Your task to perform on an android device: open app "Mercado Libre" (install if not already installed) and go to login screen Image 0: 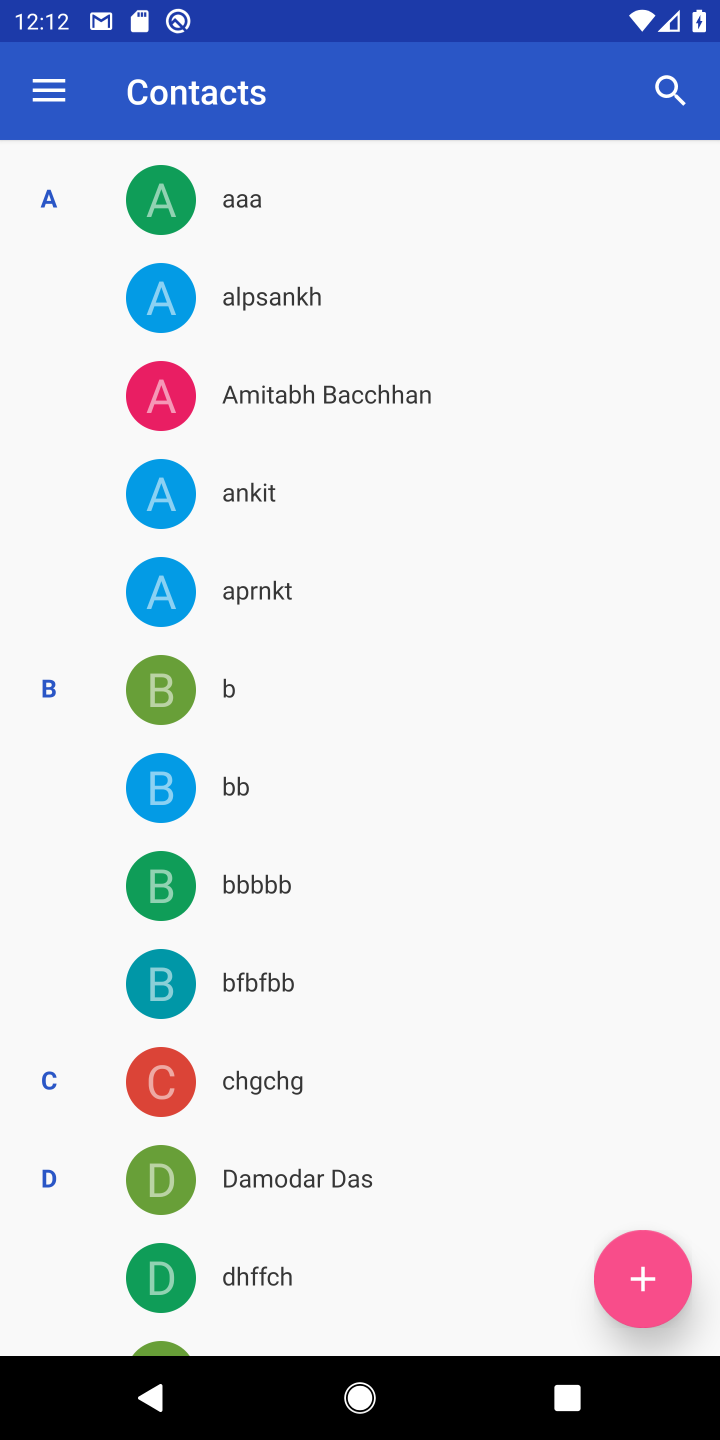
Step 0: press home button
Your task to perform on an android device: open app "Mercado Libre" (install if not already installed) and go to login screen Image 1: 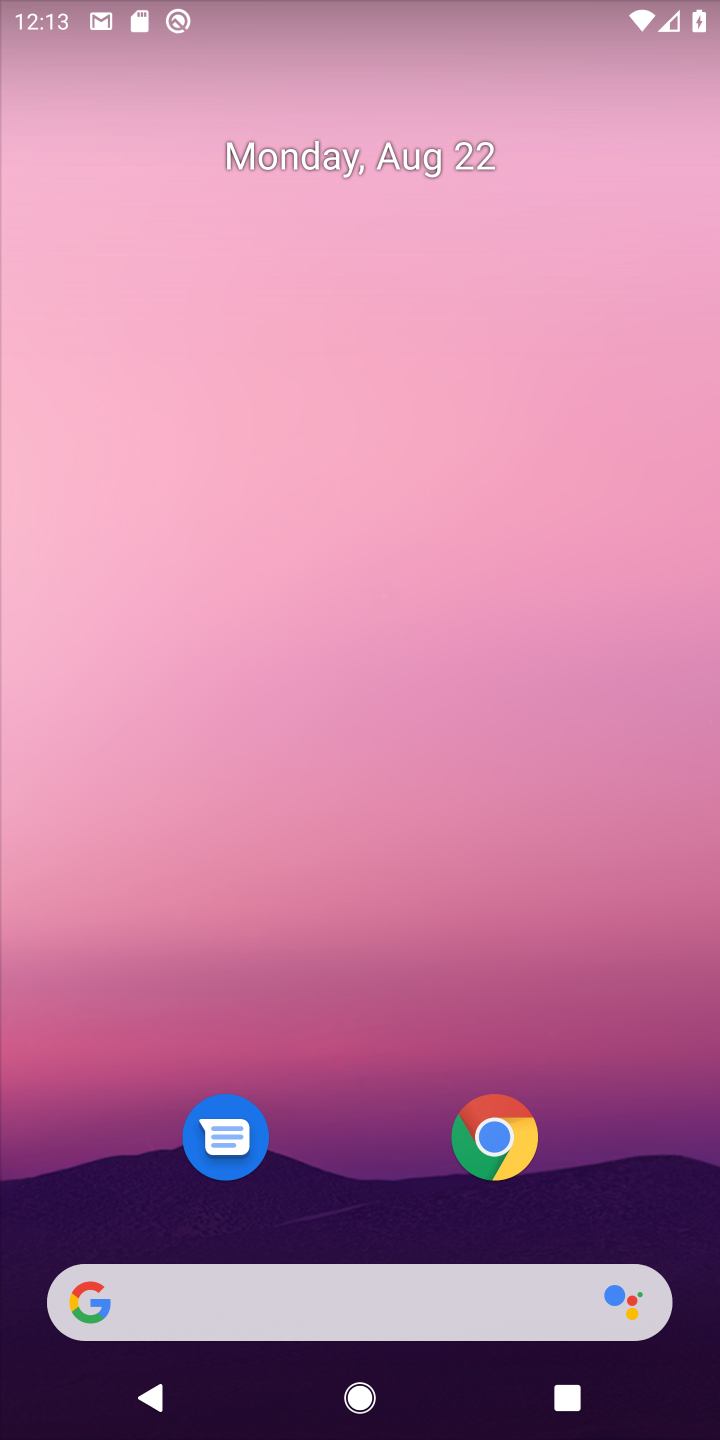
Step 1: drag from (676, 1214) to (615, 279)
Your task to perform on an android device: open app "Mercado Libre" (install if not already installed) and go to login screen Image 2: 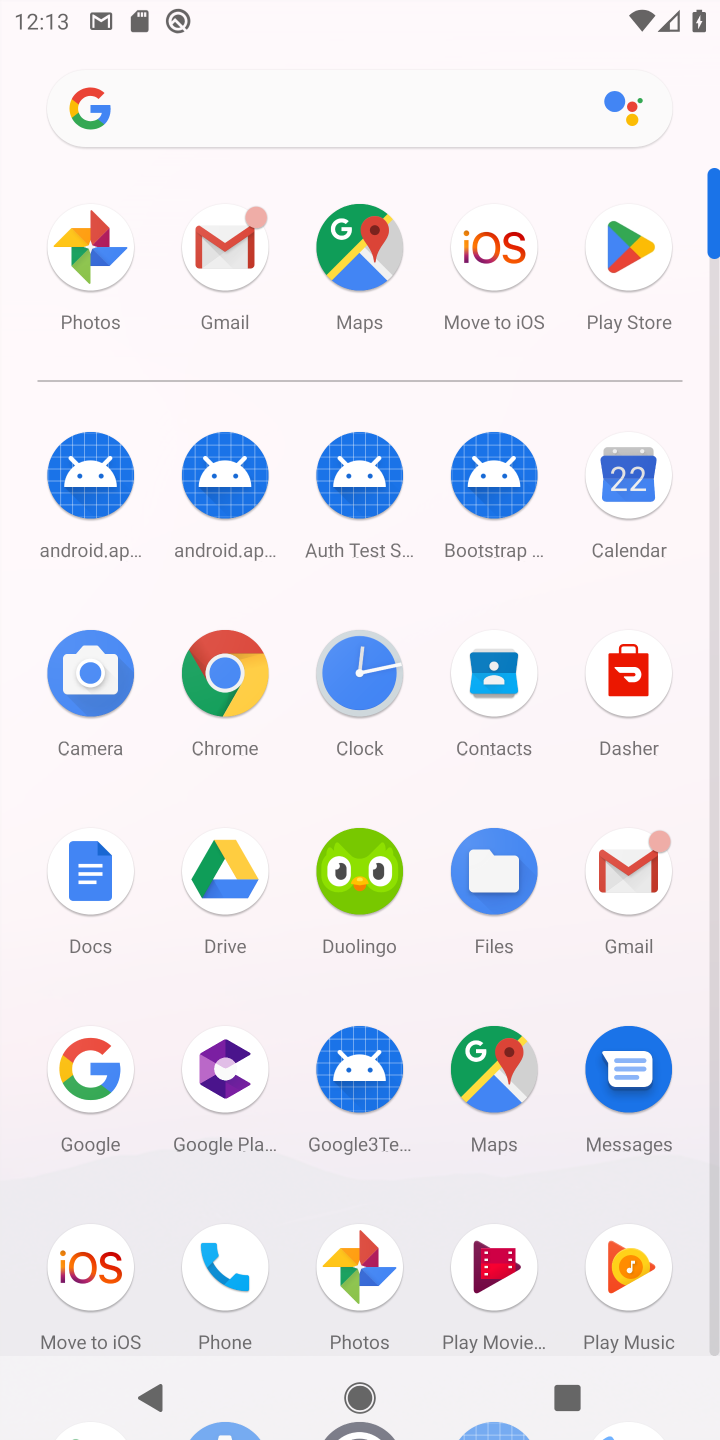
Step 2: drag from (422, 1200) to (410, 473)
Your task to perform on an android device: open app "Mercado Libre" (install if not already installed) and go to login screen Image 3: 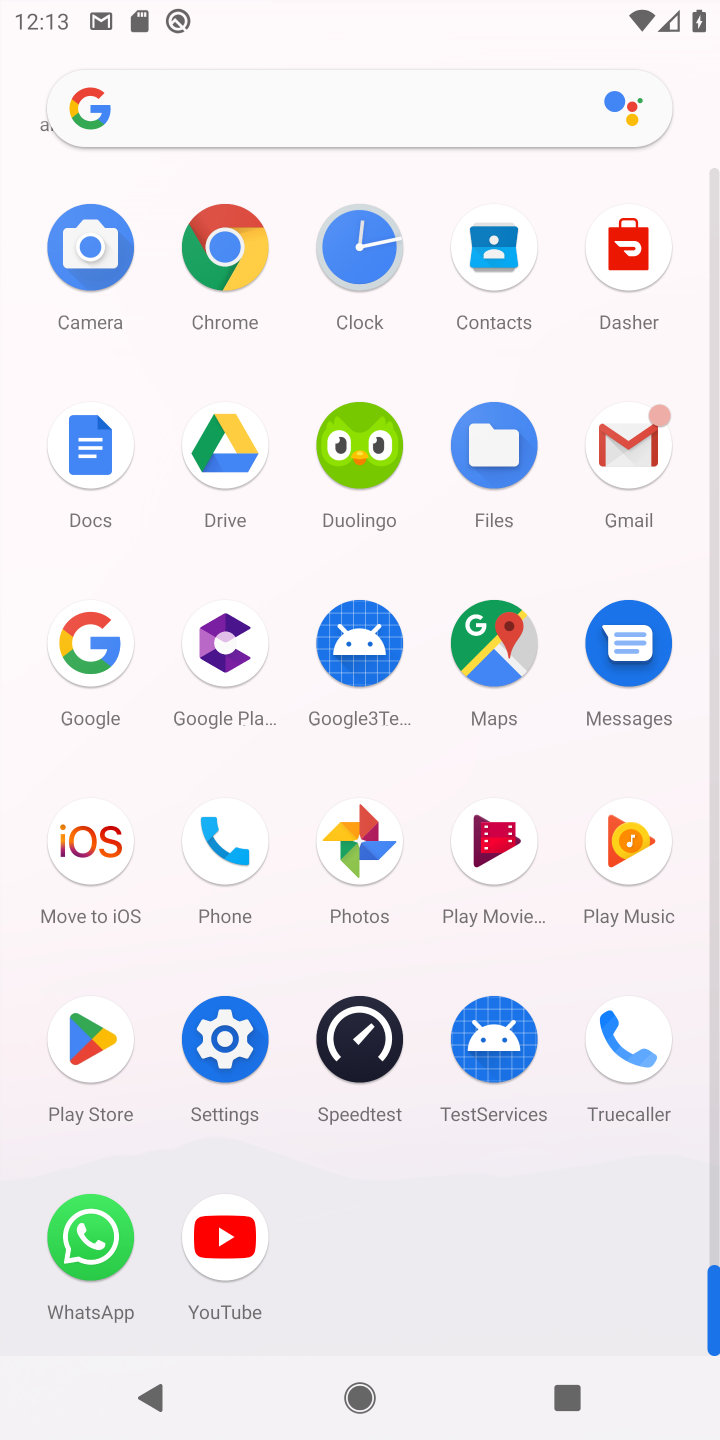
Step 3: click (93, 1039)
Your task to perform on an android device: open app "Mercado Libre" (install if not already installed) and go to login screen Image 4: 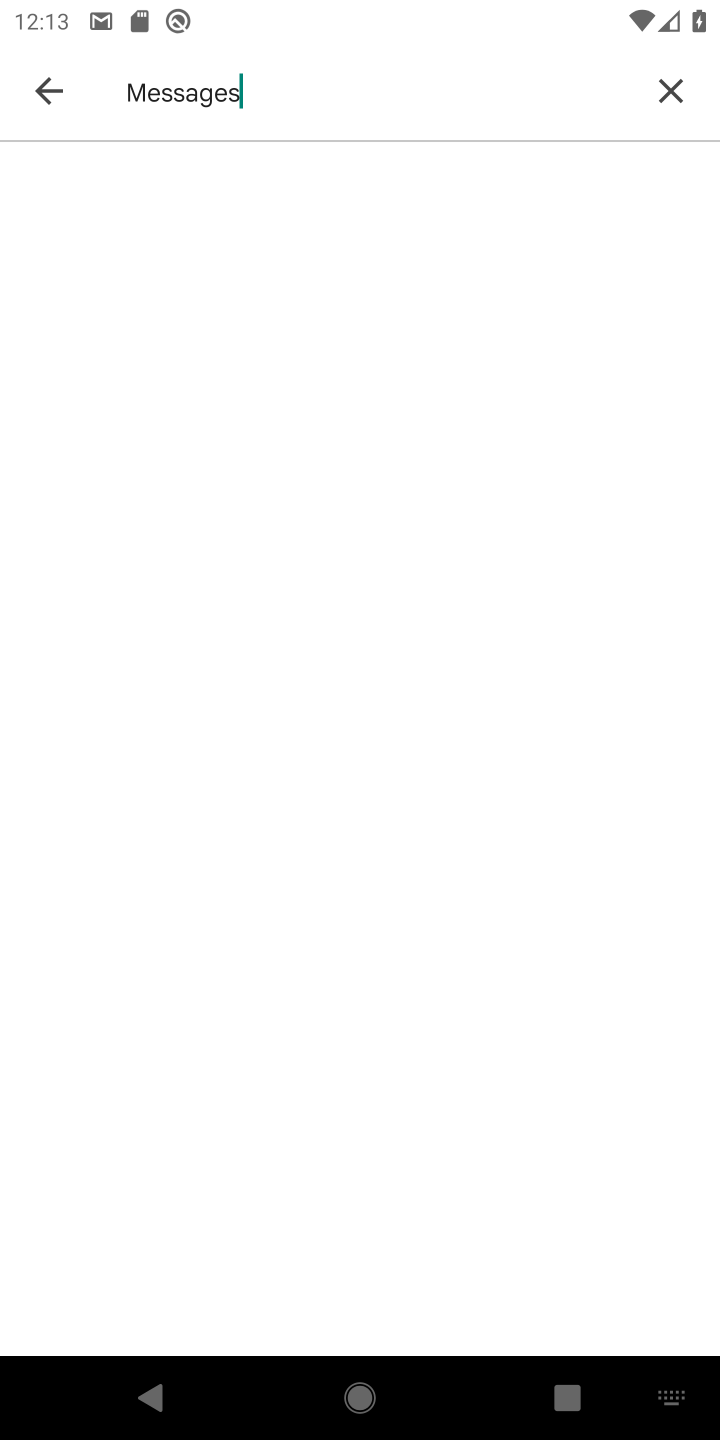
Step 4: click (672, 87)
Your task to perform on an android device: open app "Mercado Libre" (install if not already installed) and go to login screen Image 5: 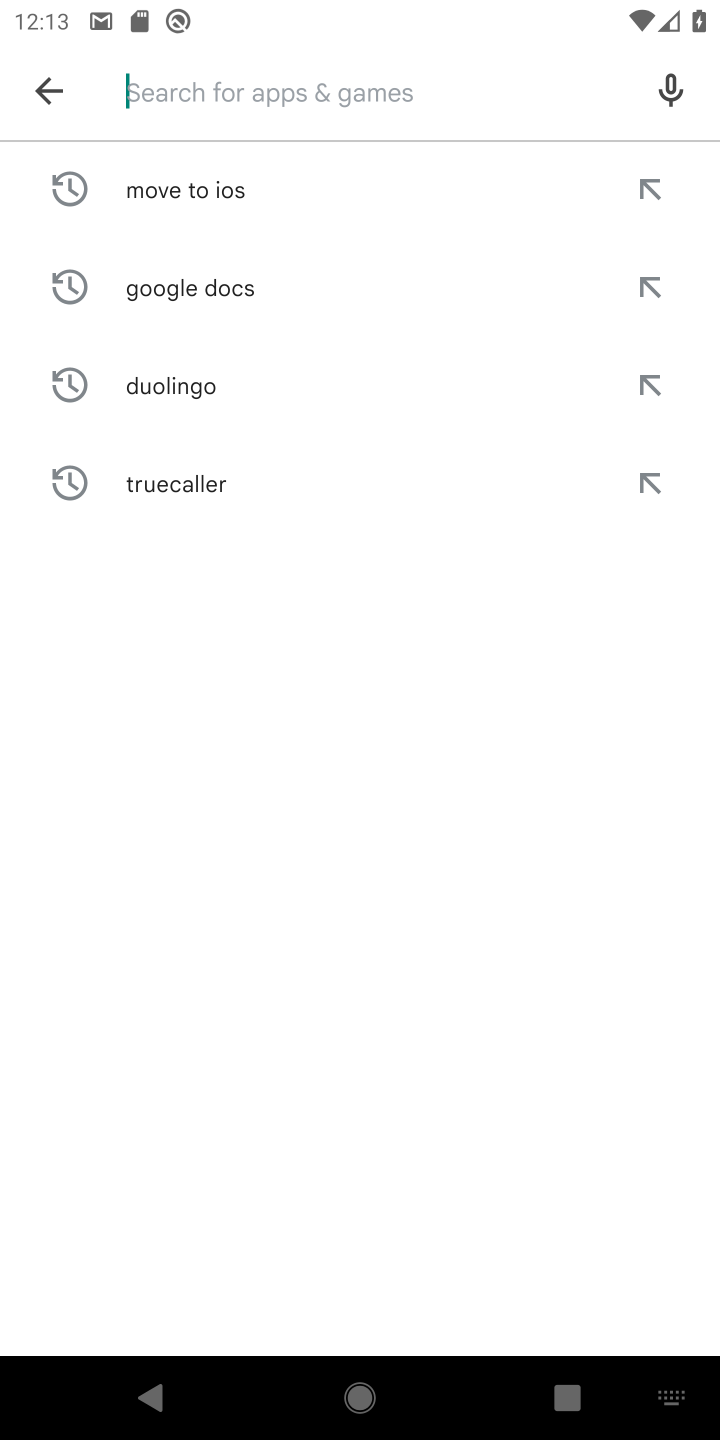
Step 5: type "Mercado Libre"
Your task to perform on an android device: open app "Mercado Libre" (install if not already installed) and go to login screen Image 6: 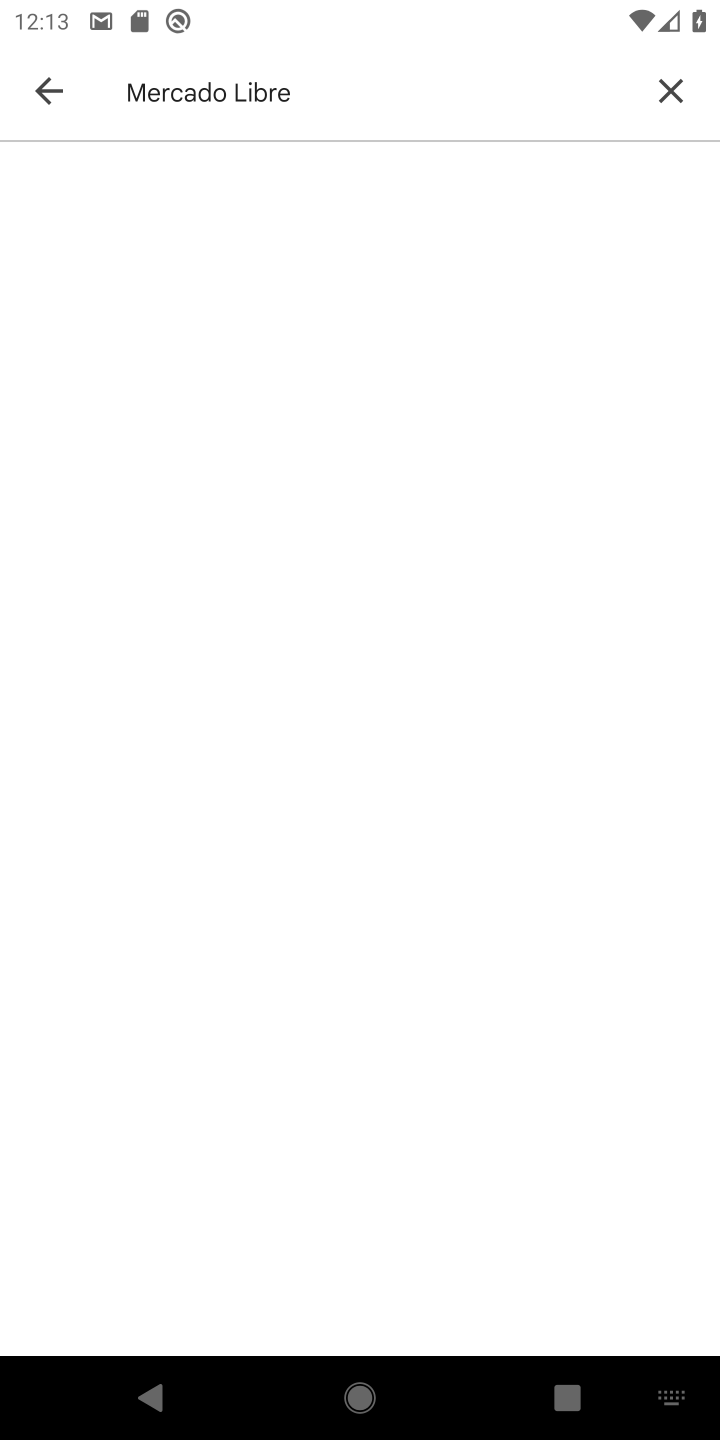
Step 6: task complete